Your task to perform on an android device: turn off improve location accuracy Image 0: 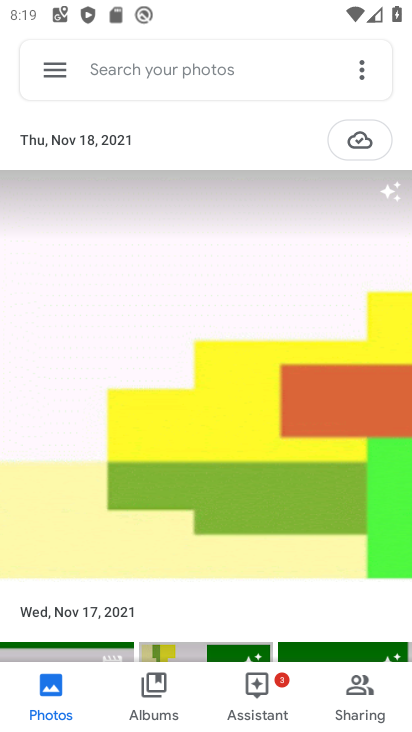
Step 0: press home button
Your task to perform on an android device: turn off improve location accuracy Image 1: 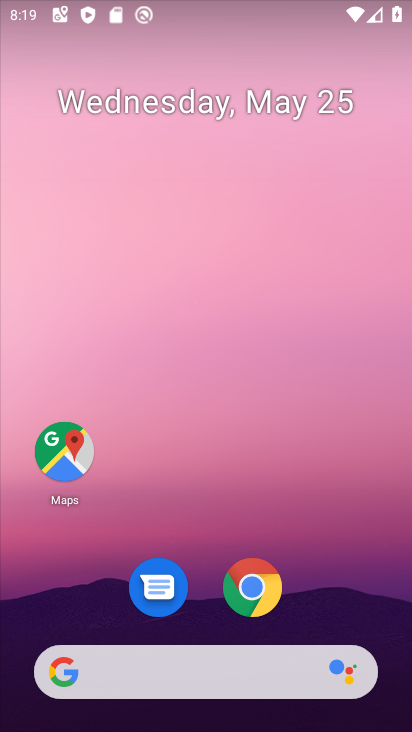
Step 1: drag from (325, 559) to (333, 136)
Your task to perform on an android device: turn off improve location accuracy Image 2: 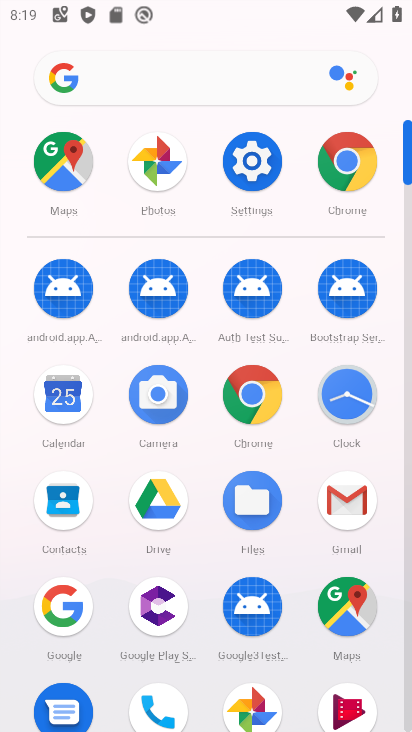
Step 2: click (244, 162)
Your task to perform on an android device: turn off improve location accuracy Image 3: 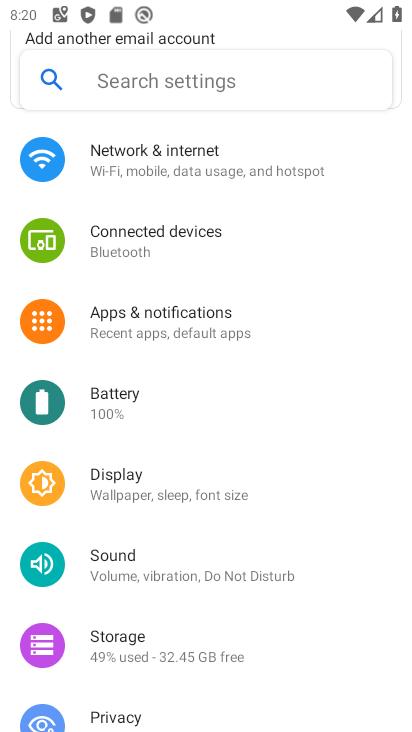
Step 3: drag from (282, 658) to (282, 418)
Your task to perform on an android device: turn off improve location accuracy Image 4: 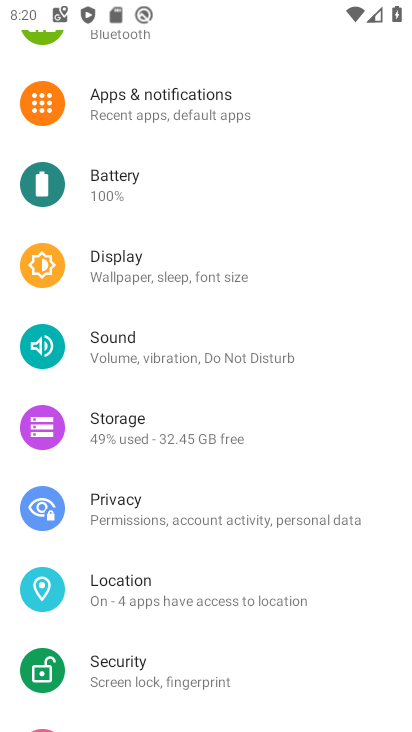
Step 4: click (188, 587)
Your task to perform on an android device: turn off improve location accuracy Image 5: 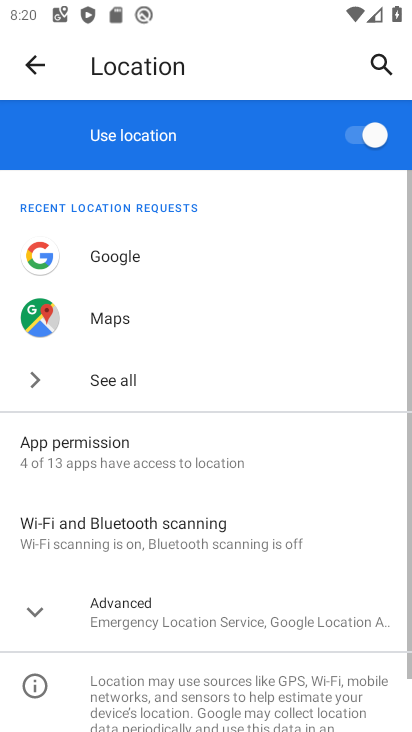
Step 5: click (384, 127)
Your task to perform on an android device: turn off improve location accuracy Image 6: 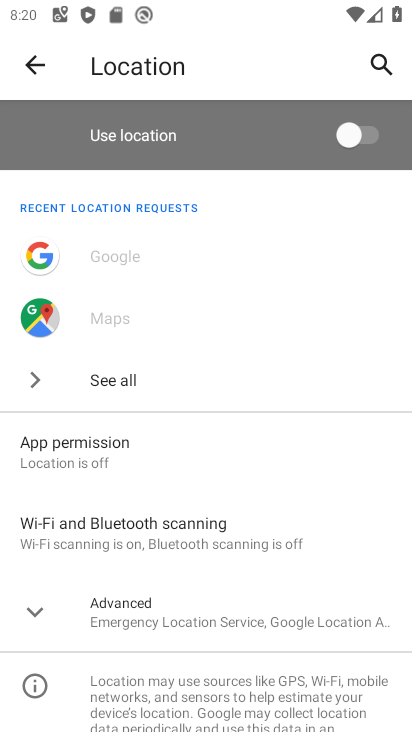
Step 6: task complete